Your task to perform on an android device: Open the map Image 0: 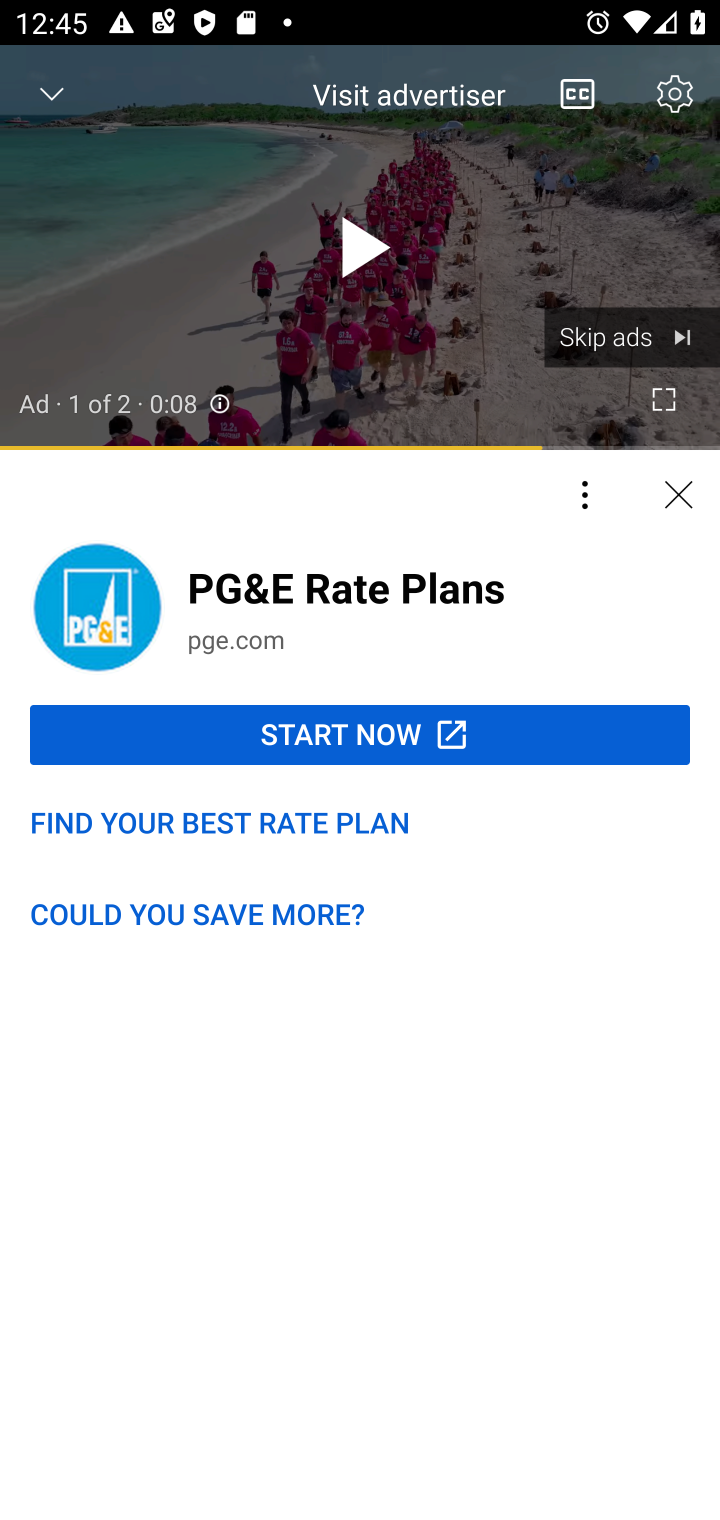
Step 0: press home button
Your task to perform on an android device: Open the map Image 1: 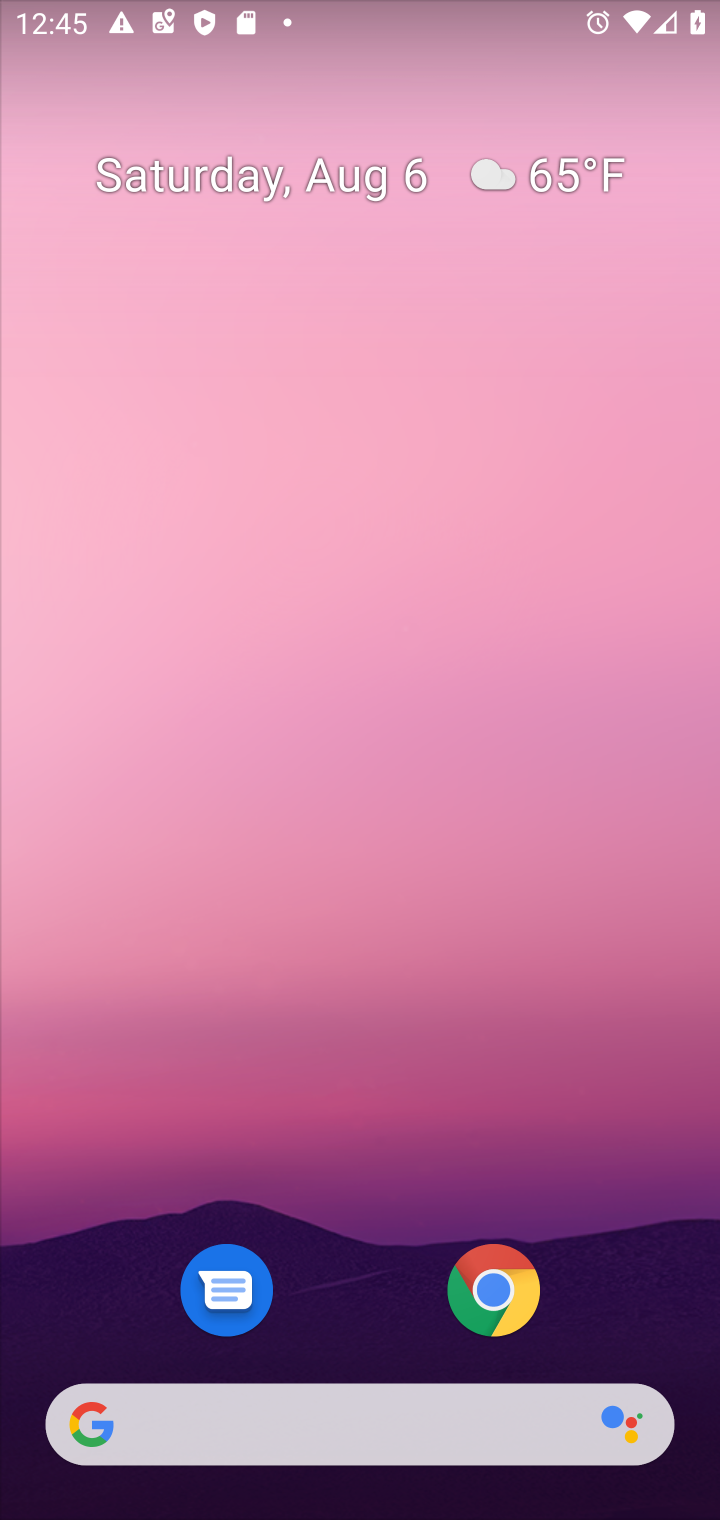
Step 1: click (395, 52)
Your task to perform on an android device: Open the map Image 2: 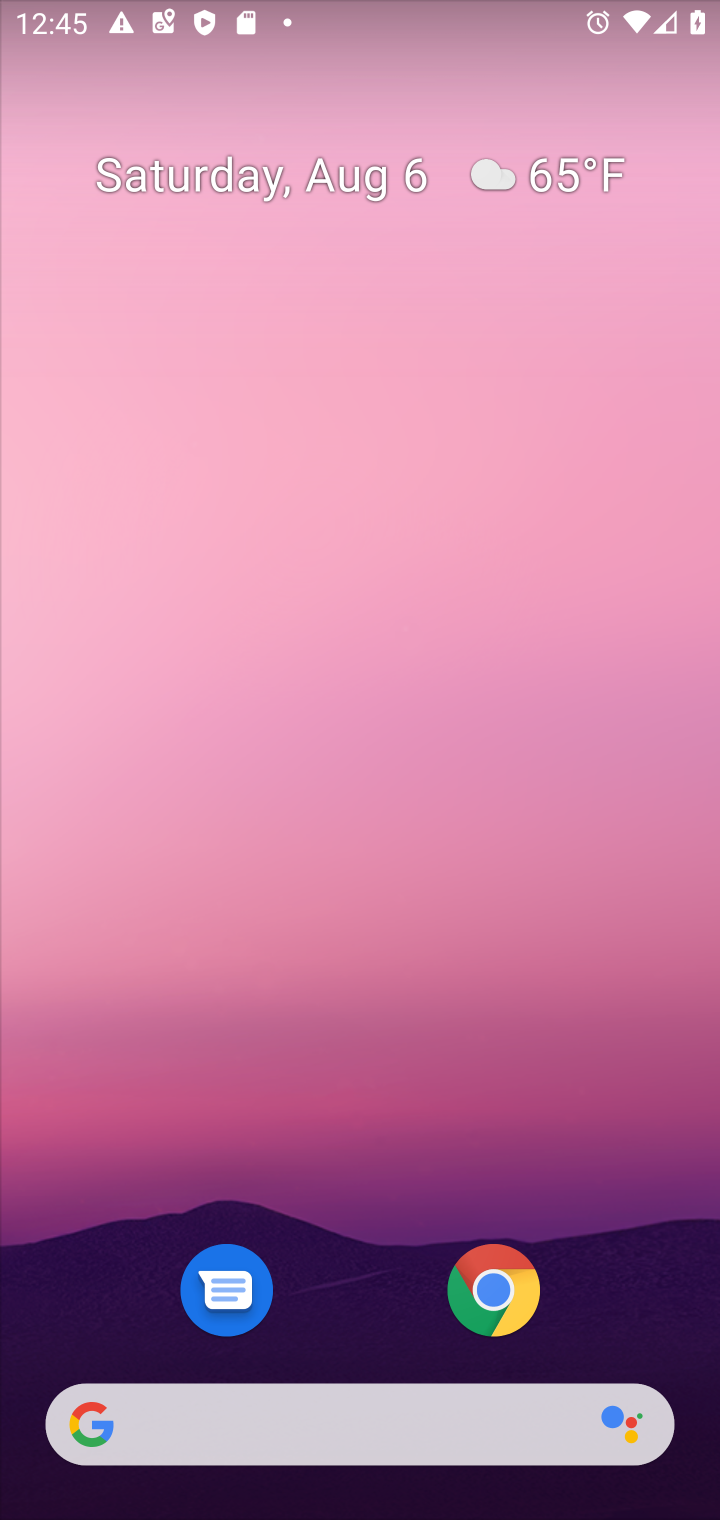
Step 2: drag from (299, 1306) to (403, 0)
Your task to perform on an android device: Open the map Image 3: 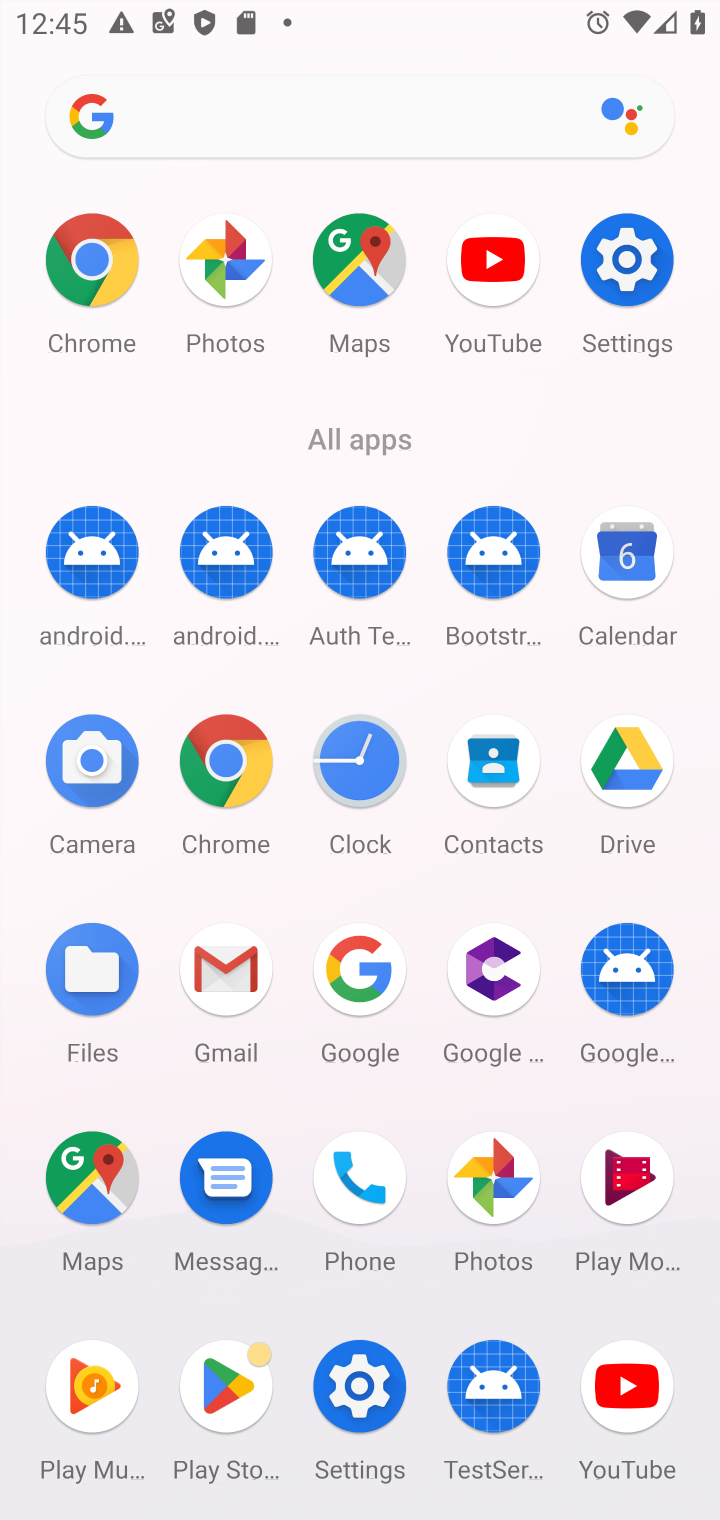
Step 3: click (86, 1167)
Your task to perform on an android device: Open the map Image 4: 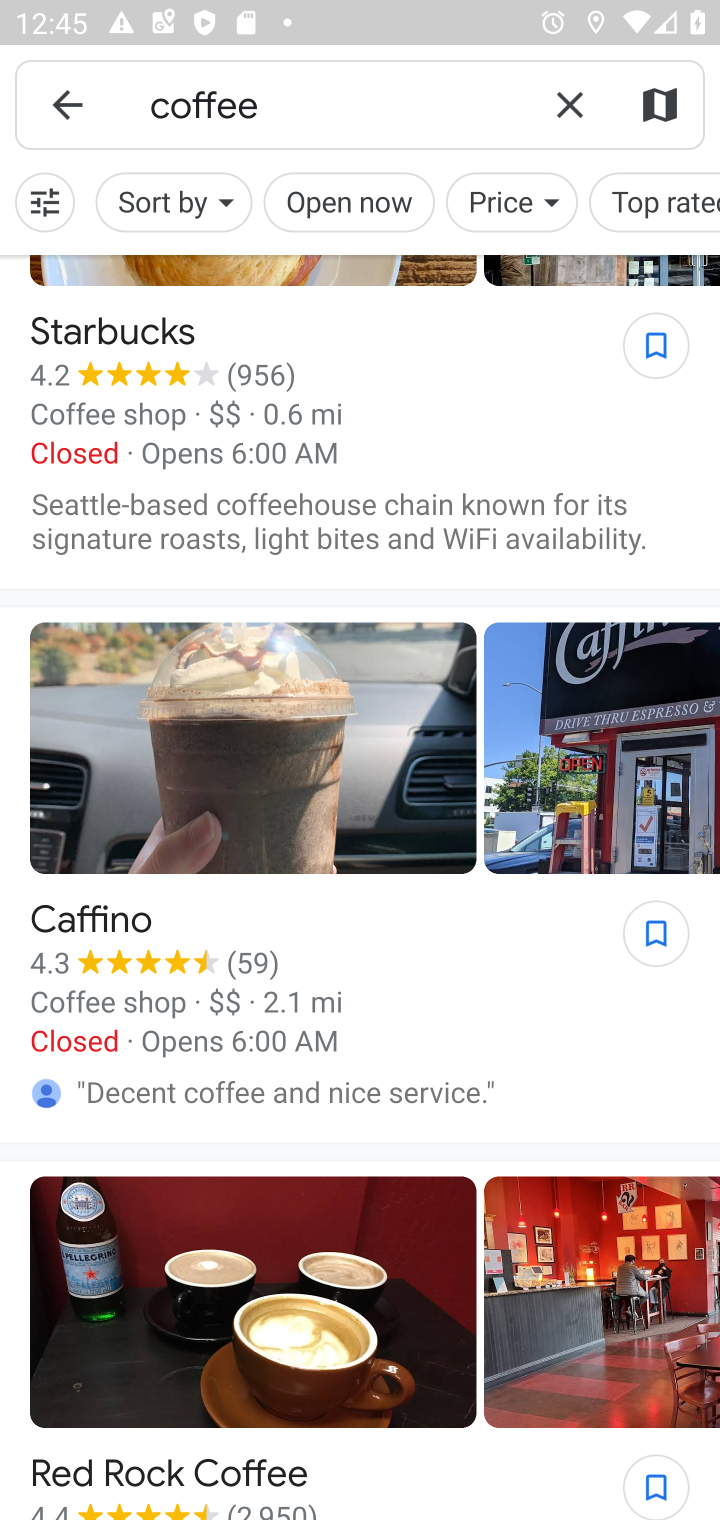
Step 4: click (68, 95)
Your task to perform on an android device: Open the map Image 5: 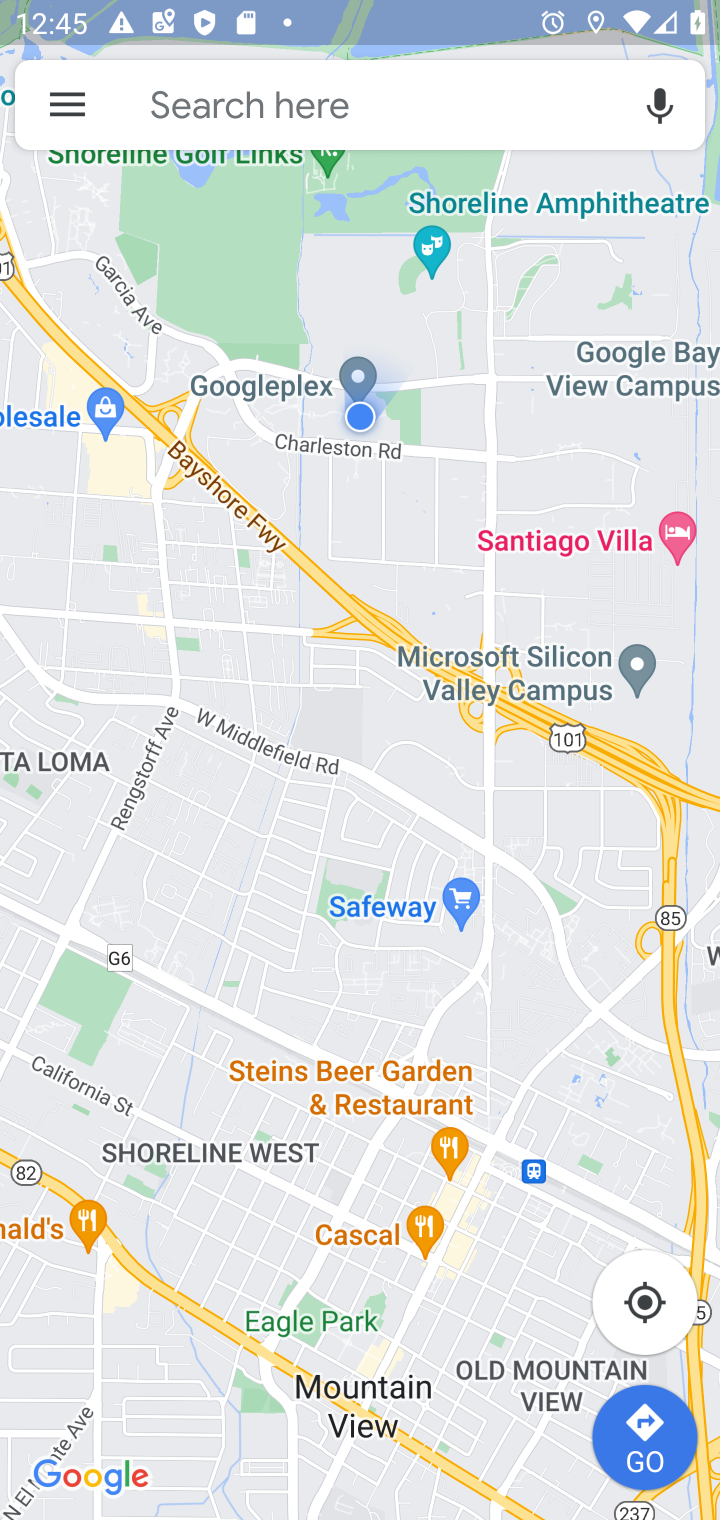
Step 5: task complete